Your task to perform on an android device: open app "Indeed Job Search" (install if not already installed) and enter user name: "quixotic@inbox.com" and password: "microphones" Image 0: 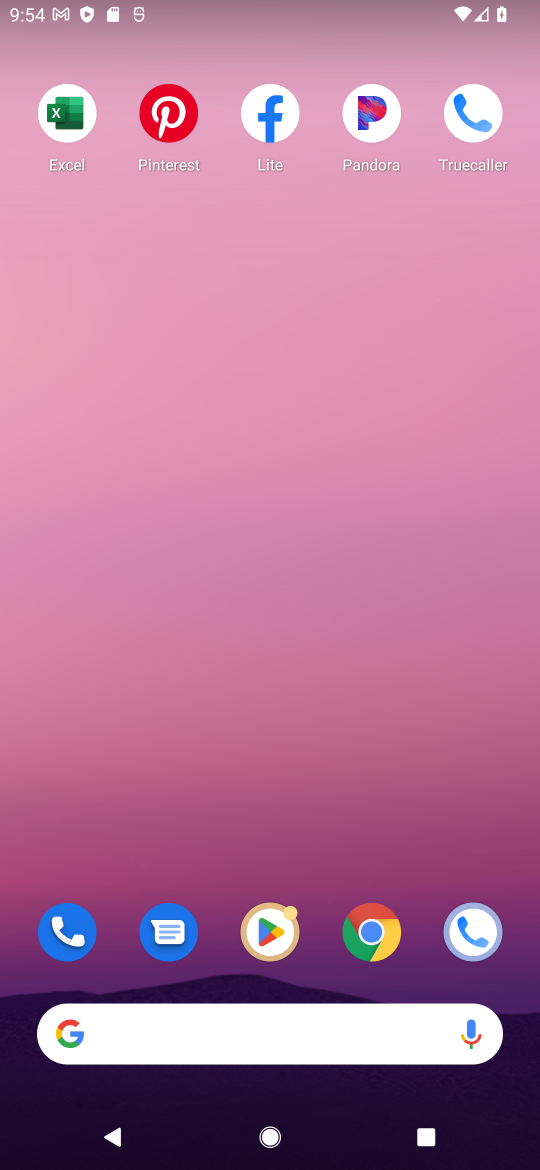
Step 0: drag from (327, 929) to (301, 4)
Your task to perform on an android device: open app "Indeed Job Search" (install if not already installed) and enter user name: "quixotic@inbox.com" and password: "microphones" Image 1: 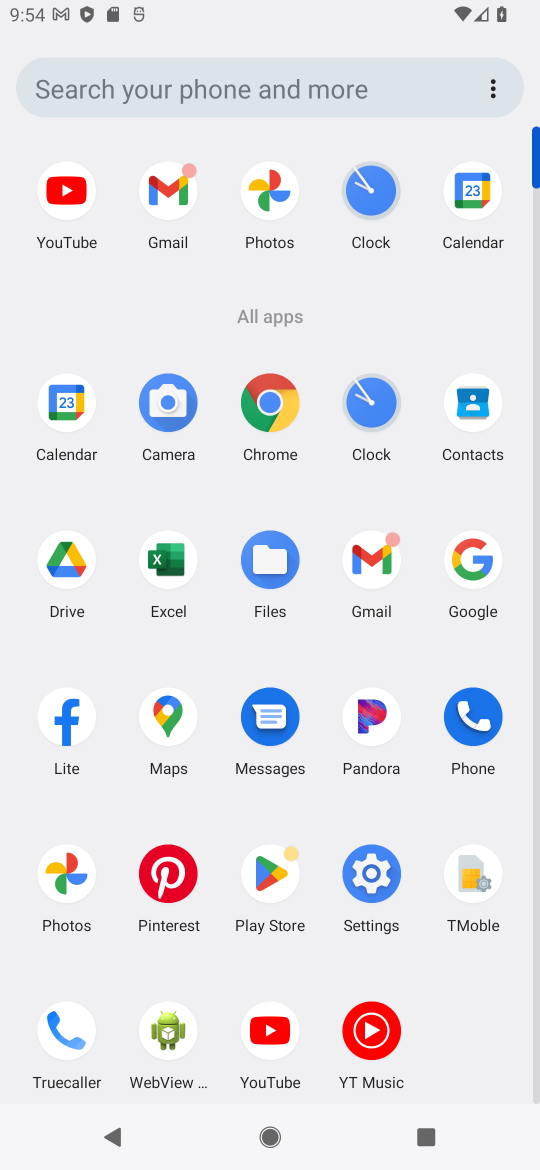
Step 1: click (272, 877)
Your task to perform on an android device: open app "Indeed Job Search" (install if not already installed) and enter user name: "quixotic@inbox.com" and password: "microphones" Image 2: 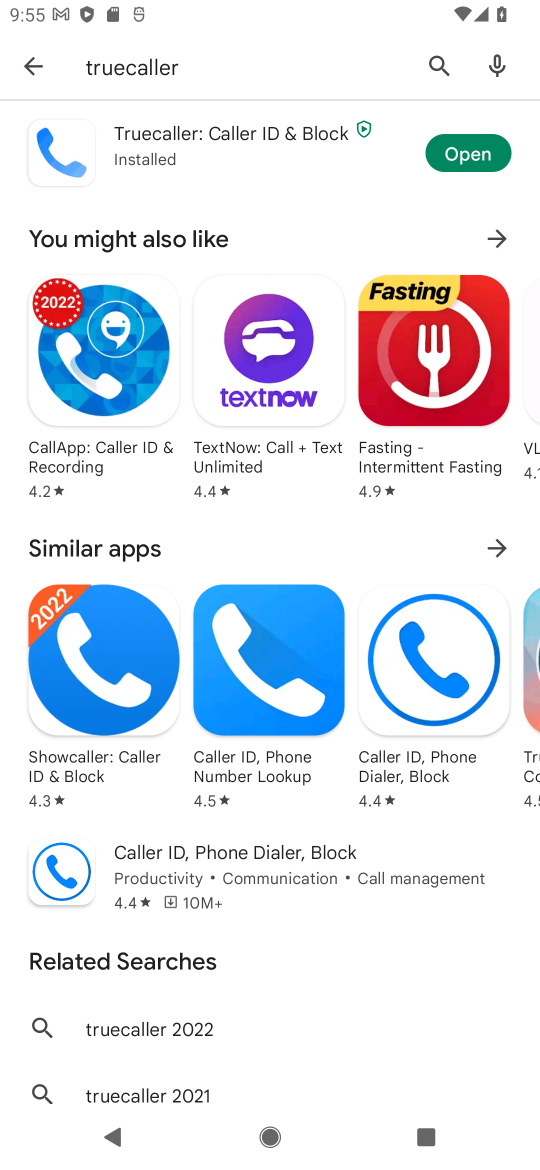
Step 2: click (432, 67)
Your task to perform on an android device: open app "Indeed Job Search" (install if not already installed) and enter user name: "quixotic@inbox.com" and password: "microphones" Image 3: 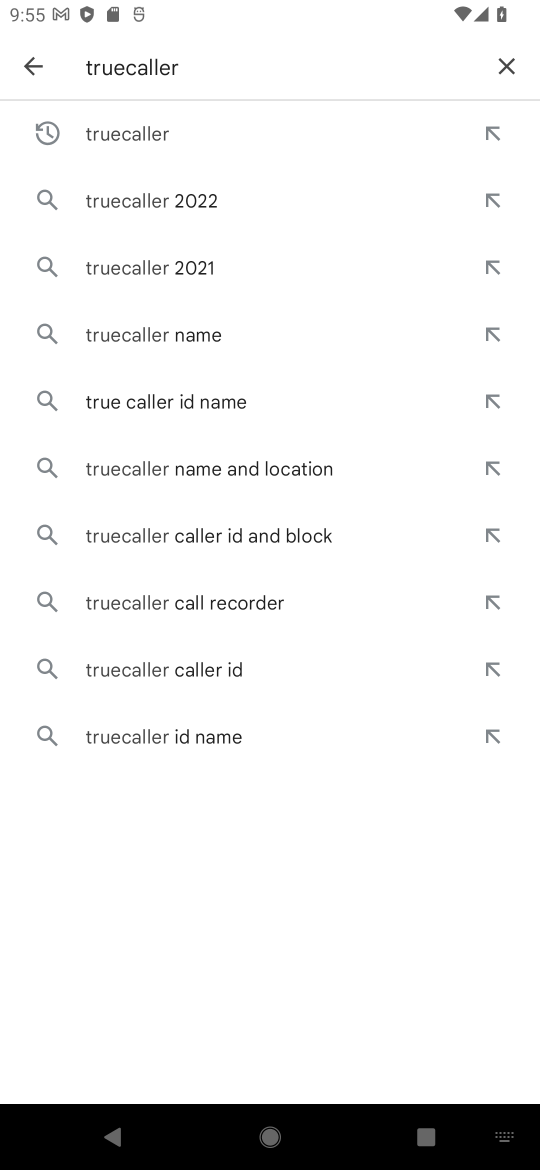
Step 3: click (504, 73)
Your task to perform on an android device: open app "Indeed Job Search" (install if not already installed) and enter user name: "quixotic@inbox.com" and password: "microphones" Image 4: 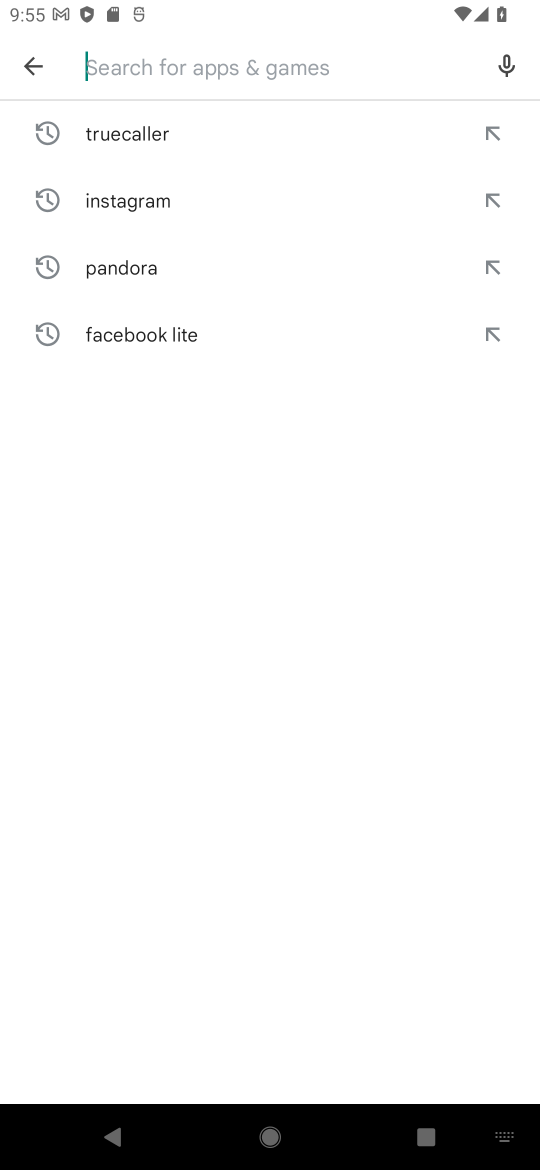
Step 4: type "indeed job serach"
Your task to perform on an android device: open app "Indeed Job Search" (install if not already installed) and enter user name: "quixotic@inbox.com" and password: "microphones" Image 5: 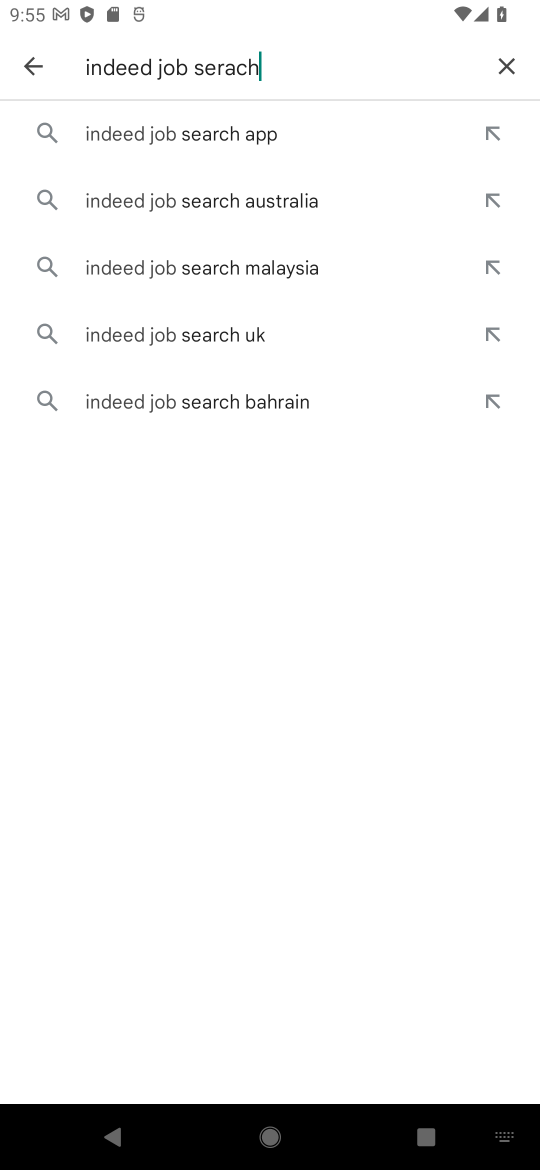
Step 5: click (256, 143)
Your task to perform on an android device: open app "Indeed Job Search" (install if not already installed) and enter user name: "quixotic@inbox.com" and password: "microphones" Image 6: 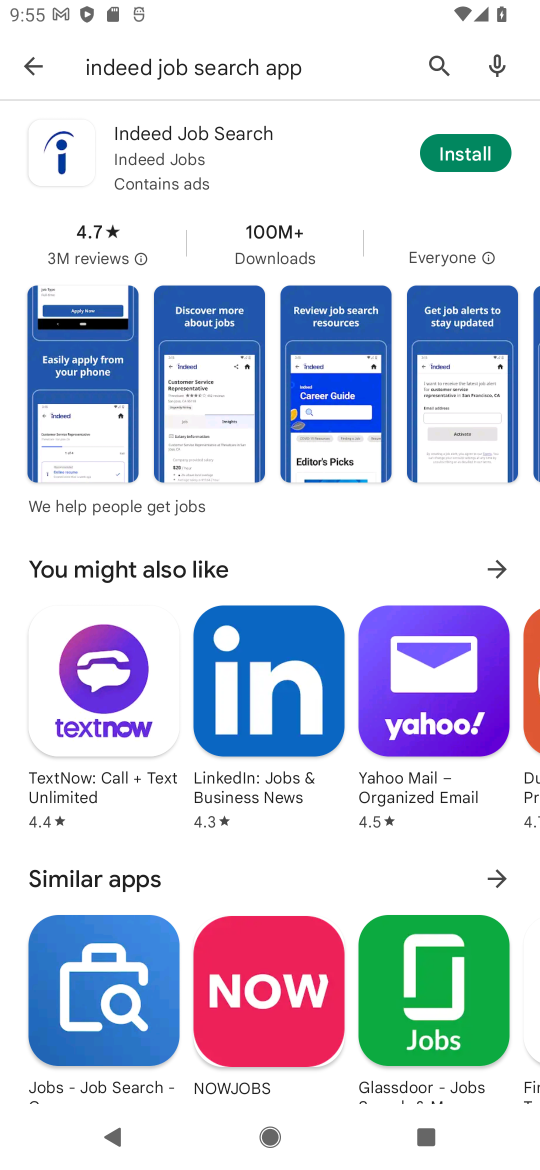
Step 6: click (444, 147)
Your task to perform on an android device: open app "Indeed Job Search" (install if not already installed) and enter user name: "quixotic@inbox.com" and password: "microphones" Image 7: 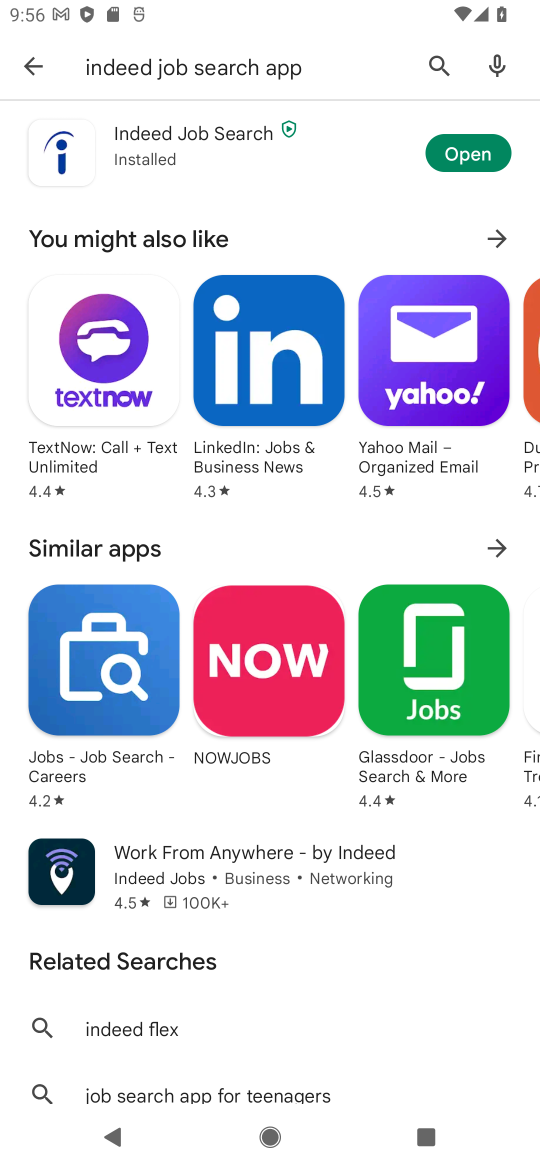
Step 7: click (455, 164)
Your task to perform on an android device: open app "Indeed Job Search" (install if not already installed) and enter user name: "quixotic@inbox.com" and password: "microphones" Image 8: 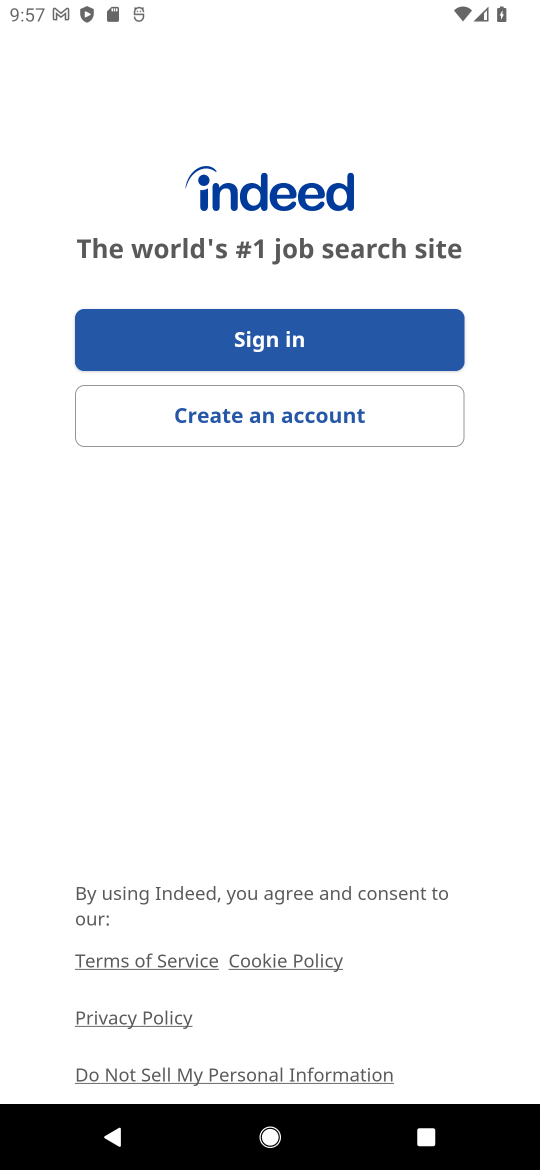
Step 8: click (260, 357)
Your task to perform on an android device: open app "Indeed Job Search" (install if not already installed) and enter user name: "quixotic@inbox.com" and password: "microphones" Image 9: 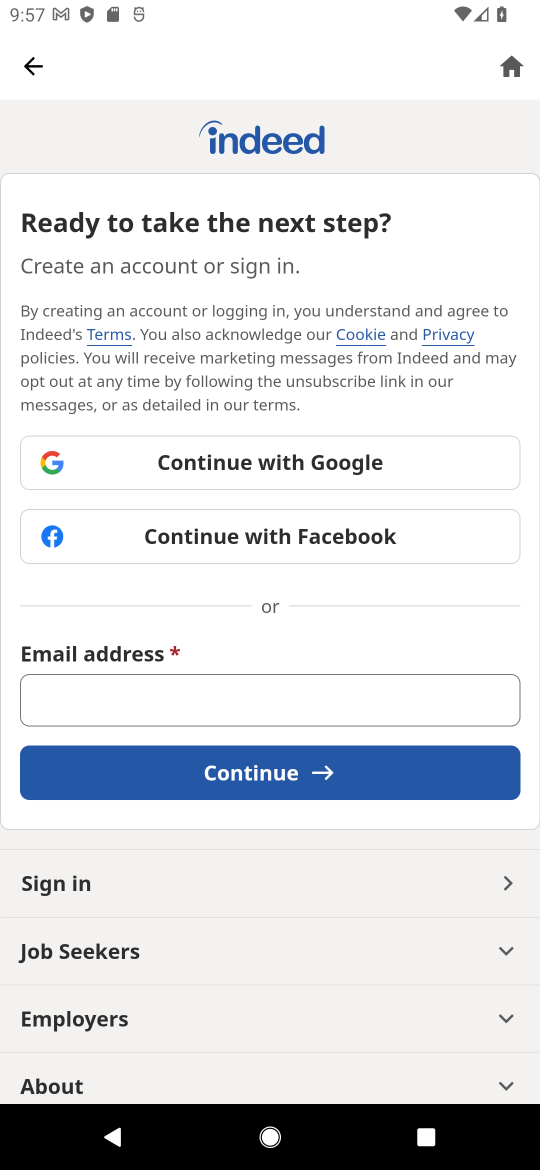
Step 9: click (326, 700)
Your task to perform on an android device: open app "Indeed Job Search" (install if not already installed) and enter user name: "quixotic@inbox.com" and password: "microphones" Image 10: 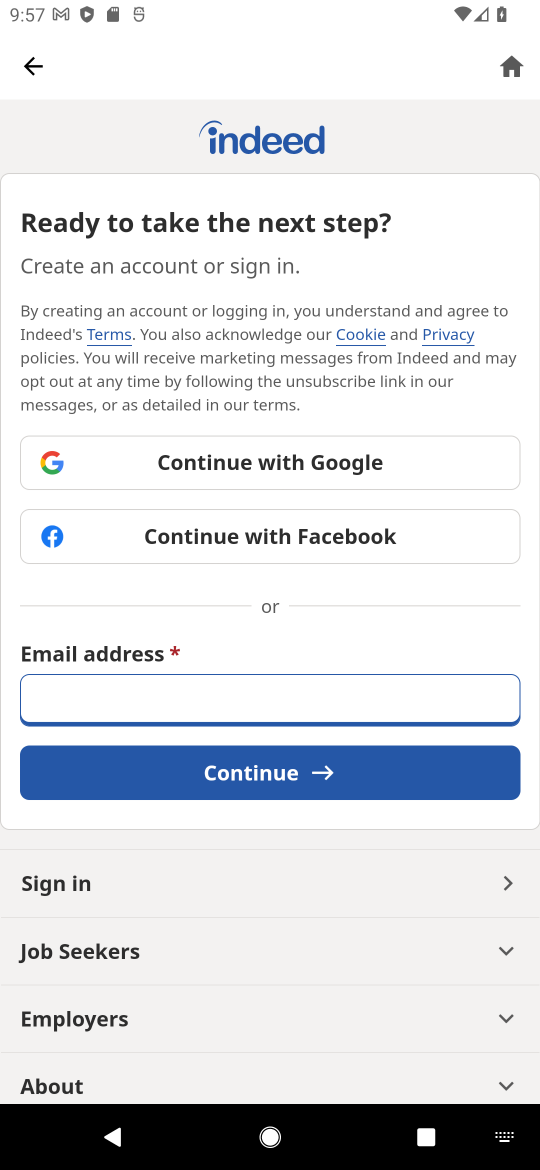
Step 10: type "quixotic@inbox.com"
Your task to perform on an android device: open app "Indeed Job Search" (install if not already installed) and enter user name: "quixotic@inbox.com" and password: "microphones" Image 11: 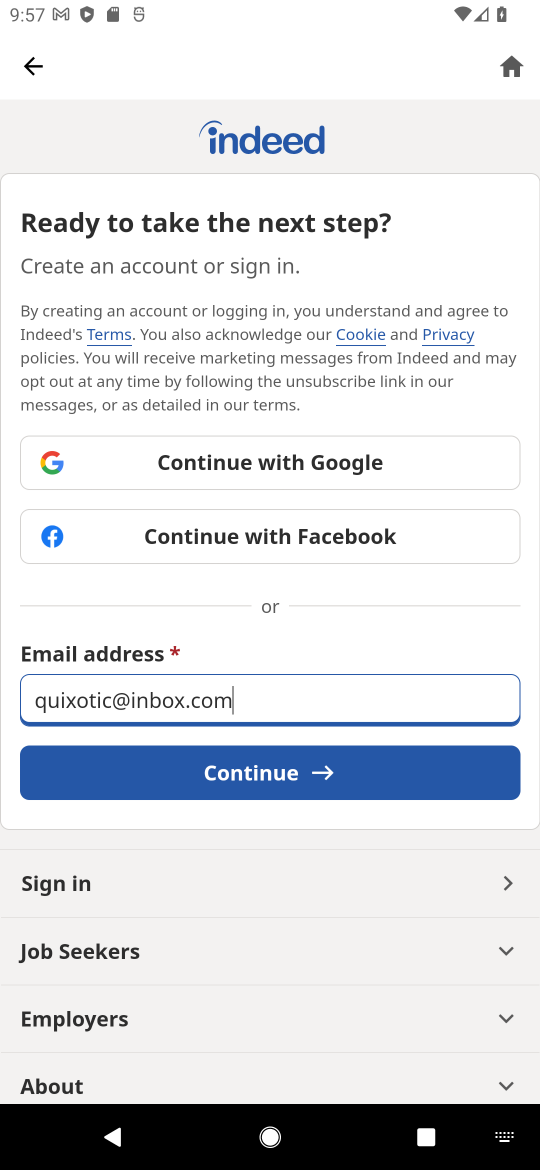
Step 11: click (350, 762)
Your task to perform on an android device: open app "Indeed Job Search" (install if not already installed) and enter user name: "quixotic@inbox.com" and password: "microphones" Image 12: 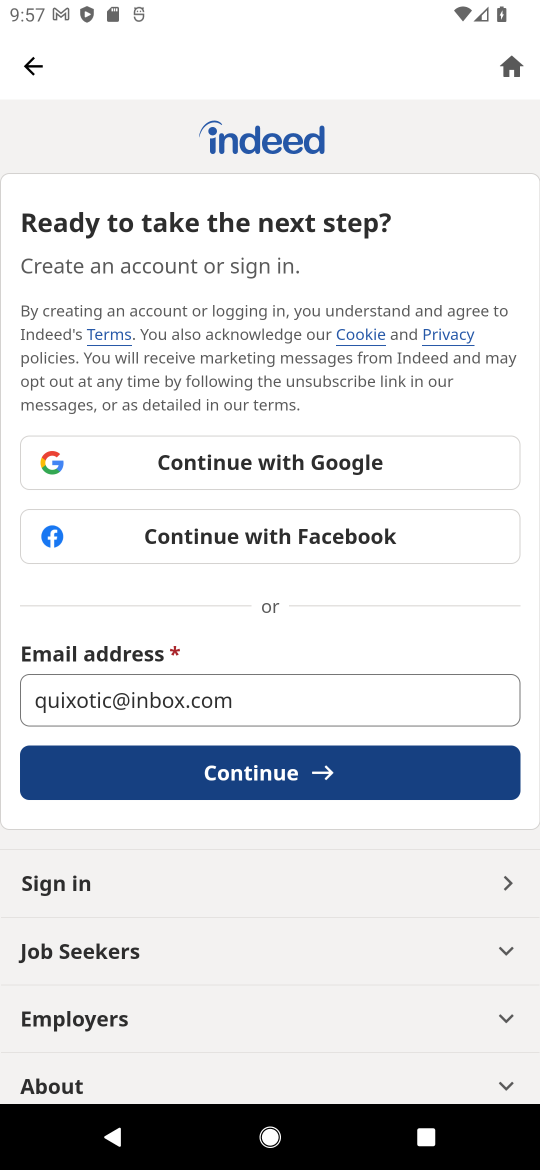
Step 12: click (316, 788)
Your task to perform on an android device: open app "Indeed Job Search" (install if not already installed) and enter user name: "quixotic@inbox.com" and password: "microphones" Image 13: 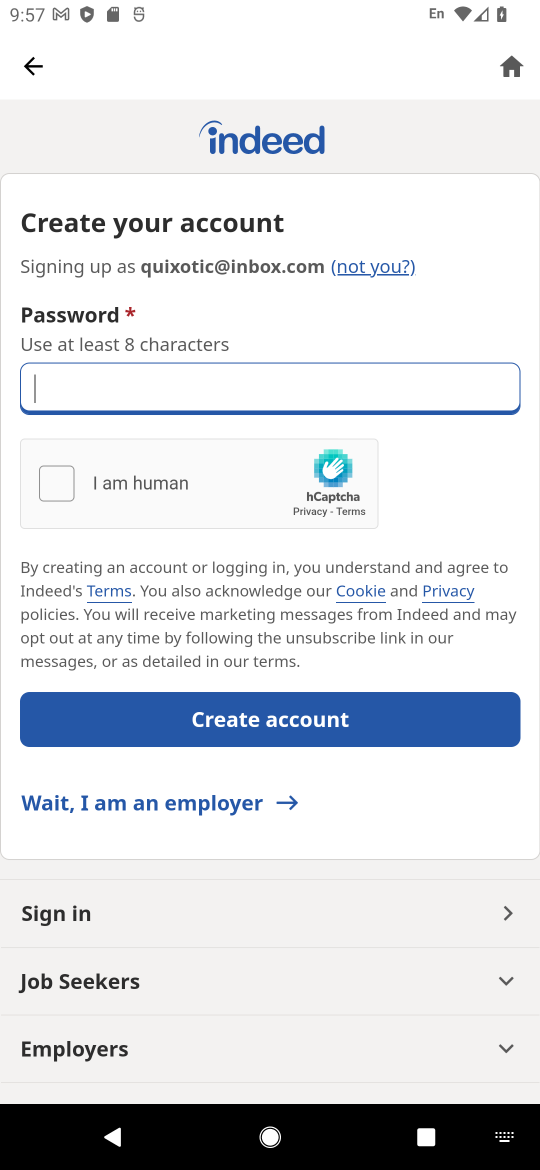
Step 13: type "microphones"
Your task to perform on an android device: open app "Indeed Job Search" (install if not already installed) and enter user name: "quixotic@inbox.com" and password: "microphones" Image 14: 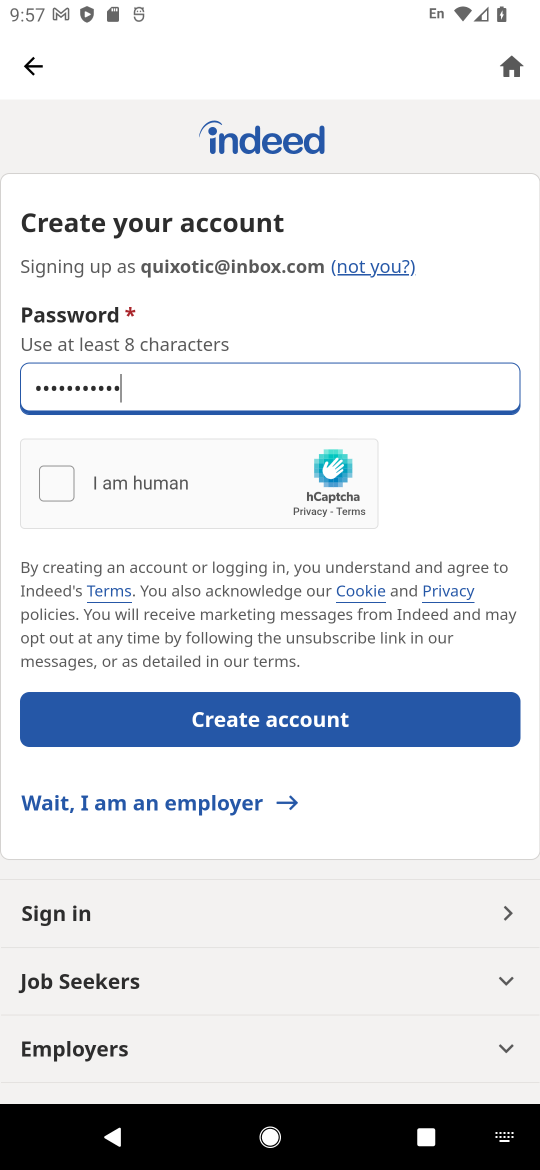
Step 14: task complete